Your task to perform on an android device: Go to CNN.com Image 0: 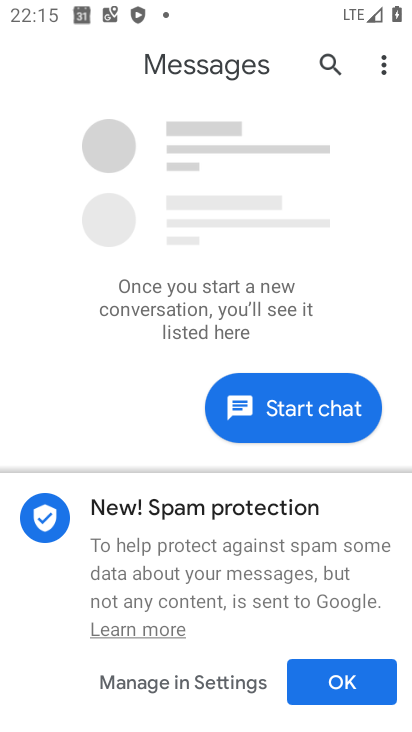
Step 0: press home button
Your task to perform on an android device: Go to CNN.com Image 1: 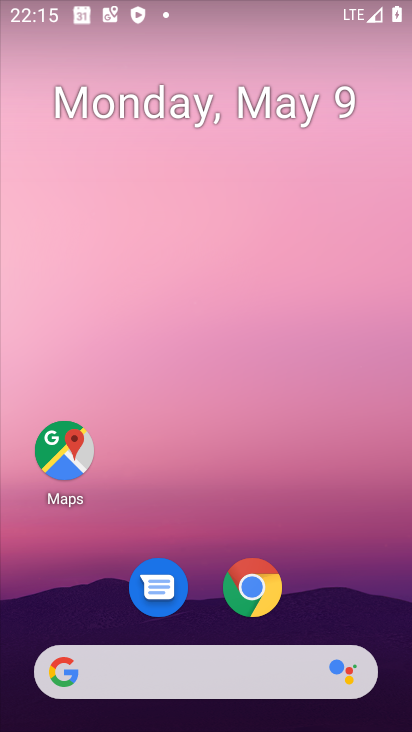
Step 1: click (158, 674)
Your task to perform on an android device: Go to CNN.com Image 2: 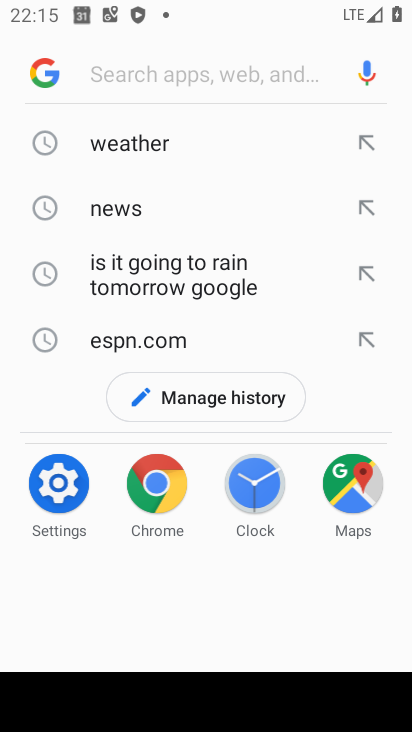
Step 2: type "cnn.com"
Your task to perform on an android device: Go to CNN.com Image 3: 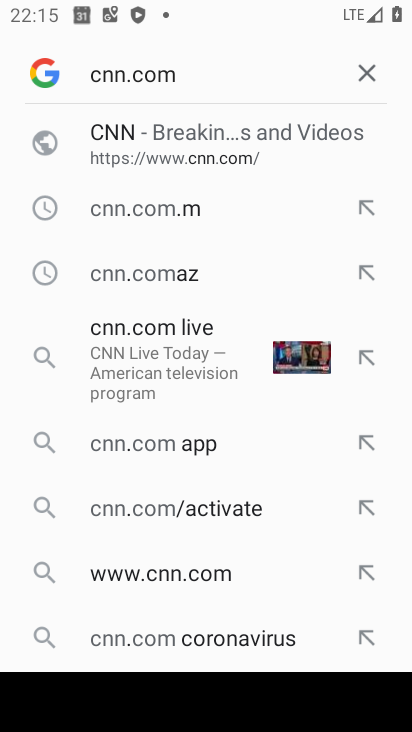
Step 3: click (151, 135)
Your task to perform on an android device: Go to CNN.com Image 4: 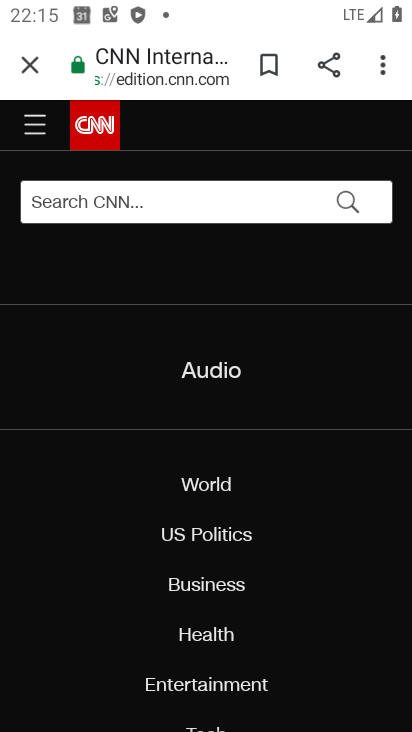
Step 4: task complete